Your task to perform on an android device: toggle javascript in the chrome app Image 0: 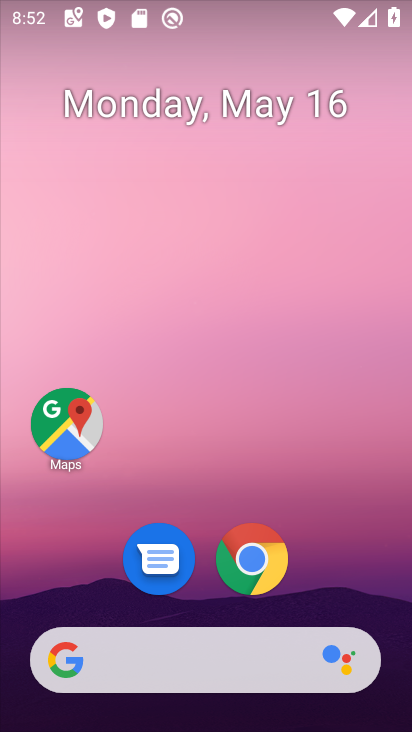
Step 0: click (234, 555)
Your task to perform on an android device: toggle javascript in the chrome app Image 1: 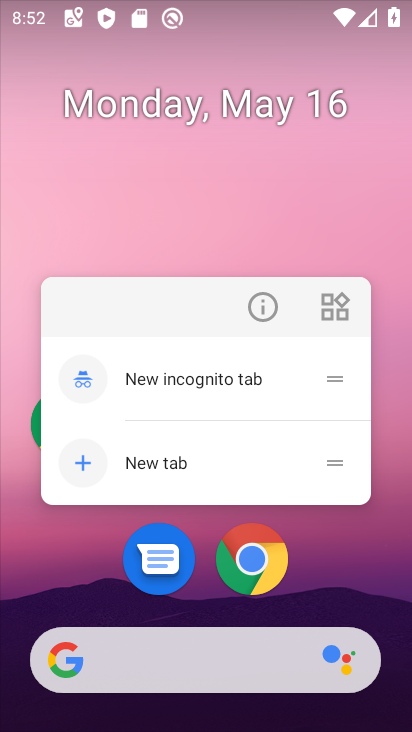
Step 1: click (254, 570)
Your task to perform on an android device: toggle javascript in the chrome app Image 2: 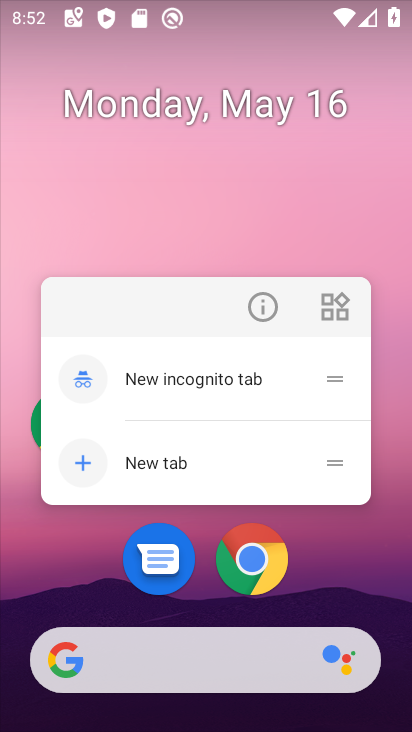
Step 2: click (244, 561)
Your task to perform on an android device: toggle javascript in the chrome app Image 3: 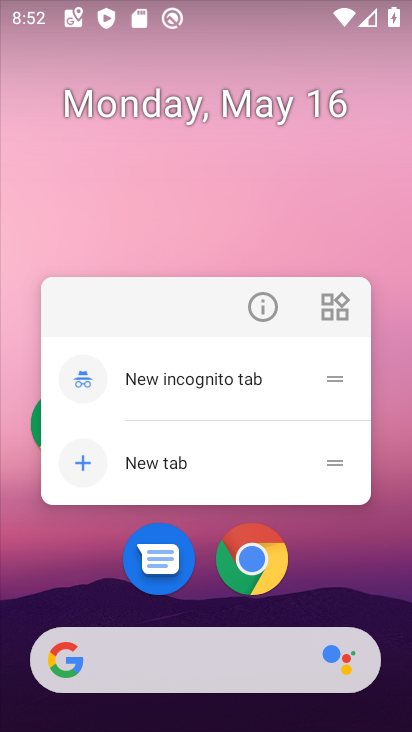
Step 3: click (243, 561)
Your task to perform on an android device: toggle javascript in the chrome app Image 4: 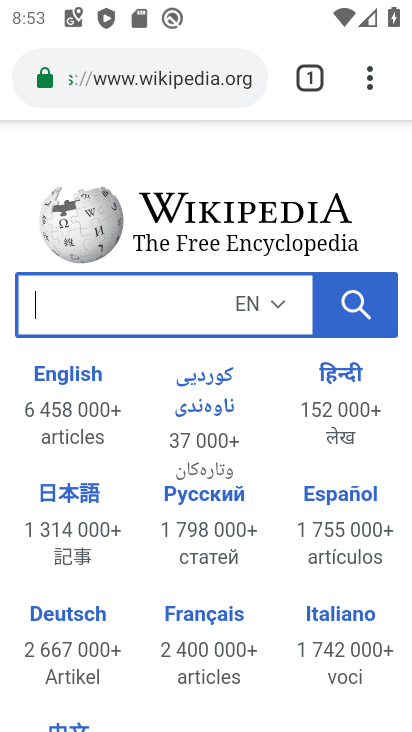
Step 4: click (355, 80)
Your task to perform on an android device: toggle javascript in the chrome app Image 5: 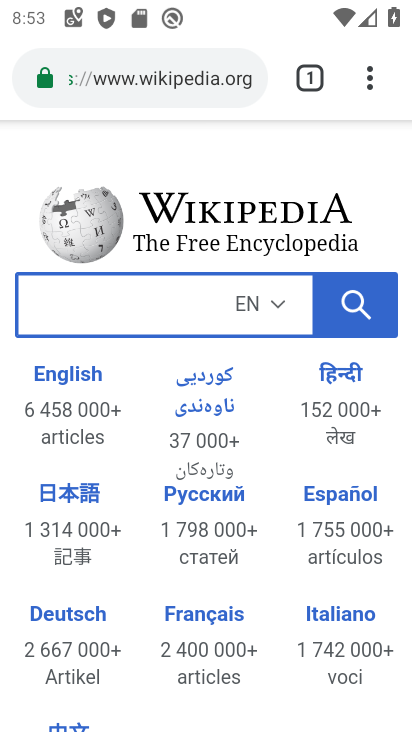
Step 5: click (367, 95)
Your task to perform on an android device: toggle javascript in the chrome app Image 6: 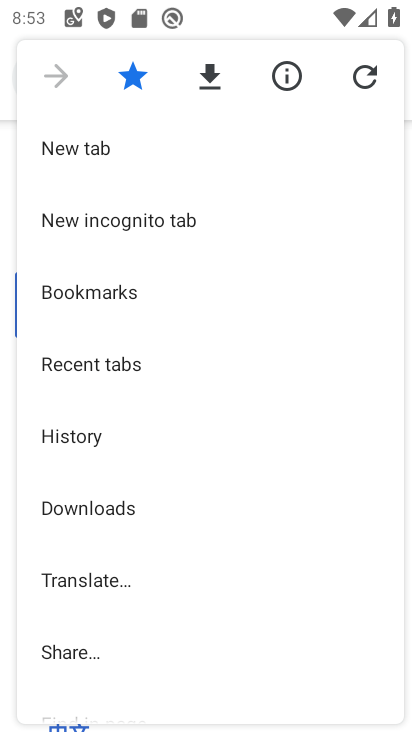
Step 6: drag from (247, 649) to (245, 192)
Your task to perform on an android device: toggle javascript in the chrome app Image 7: 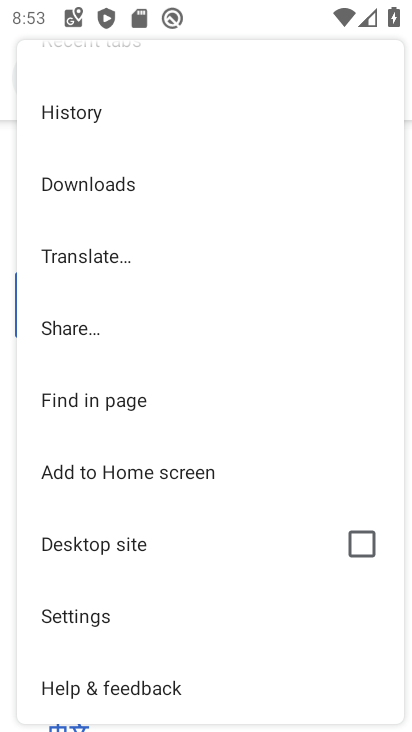
Step 7: click (139, 611)
Your task to perform on an android device: toggle javascript in the chrome app Image 8: 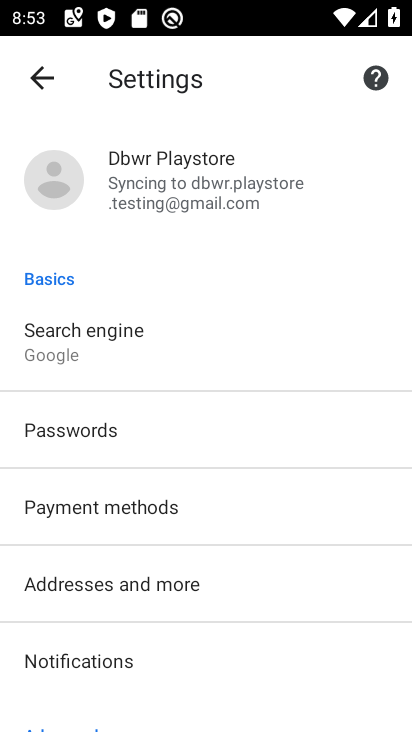
Step 8: drag from (204, 656) to (199, 337)
Your task to perform on an android device: toggle javascript in the chrome app Image 9: 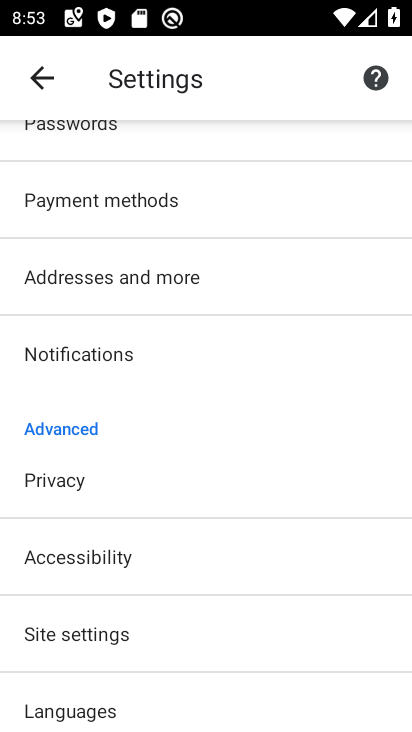
Step 9: click (172, 629)
Your task to perform on an android device: toggle javascript in the chrome app Image 10: 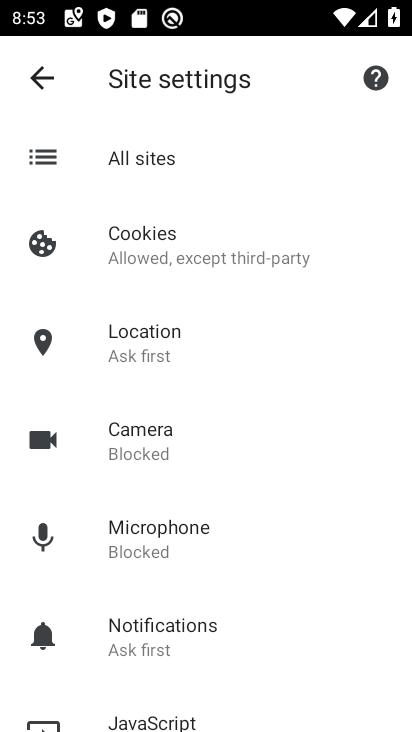
Step 10: drag from (188, 682) to (179, 541)
Your task to perform on an android device: toggle javascript in the chrome app Image 11: 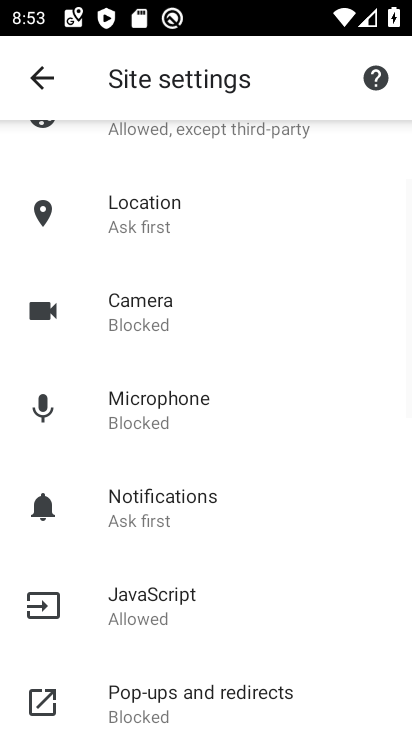
Step 11: click (187, 595)
Your task to perform on an android device: toggle javascript in the chrome app Image 12: 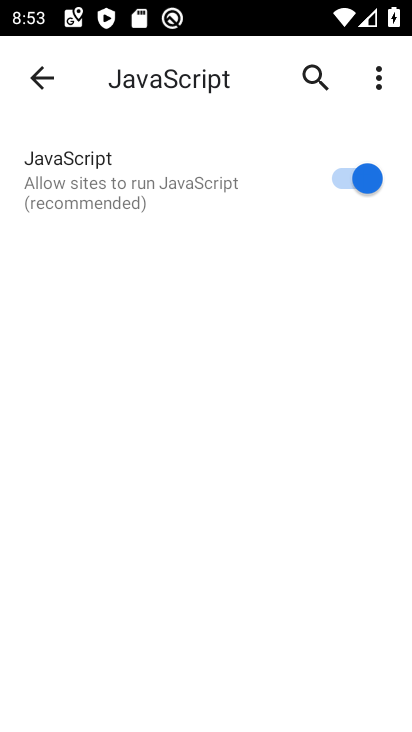
Step 12: click (361, 186)
Your task to perform on an android device: toggle javascript in the chrome app Image 13: 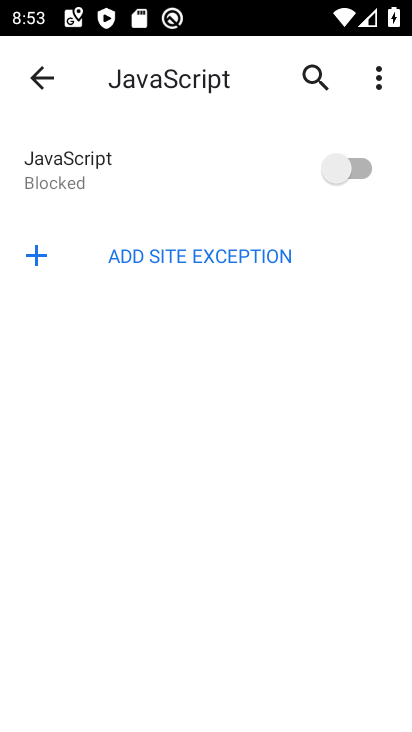
Step 13: task complete